Your task to perform on an android device: Open the stopwatch Image 0: 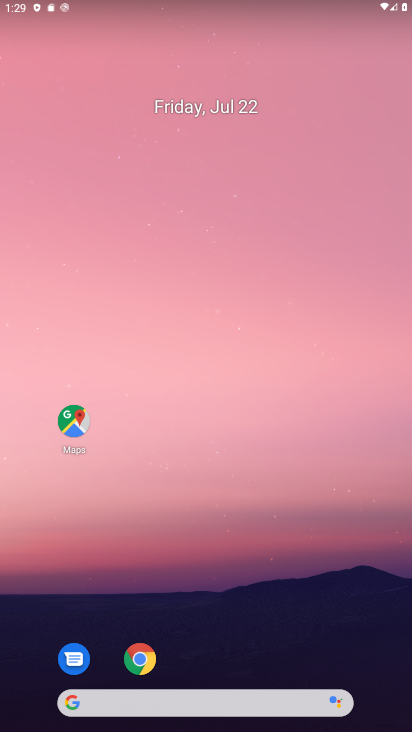
Step 0: drag from (276, 661) to (317, 726)
Your task to perform on an android device: Open the stopwatch Image 1: 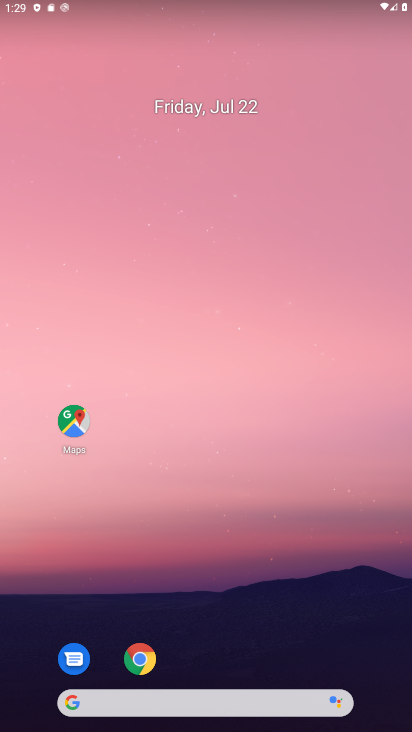
Step 1: drag from (300, 643) to (300, 216)
Your task to perform on an android device: Open the stopwatch Image 2: 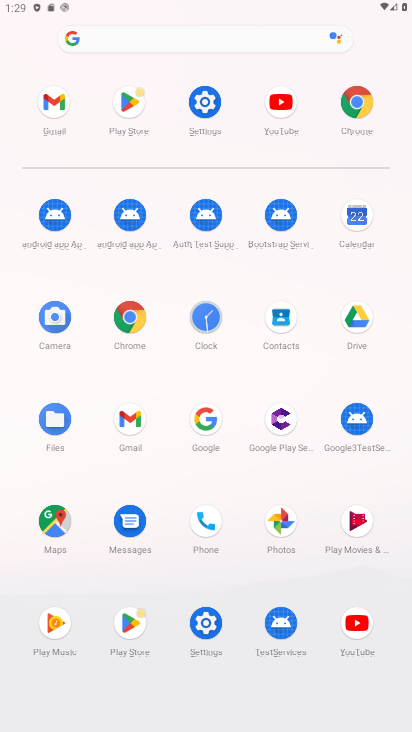
Step 2: click (198, 324)
Your task to perform on an android device: Open the stopwatch Image 3: 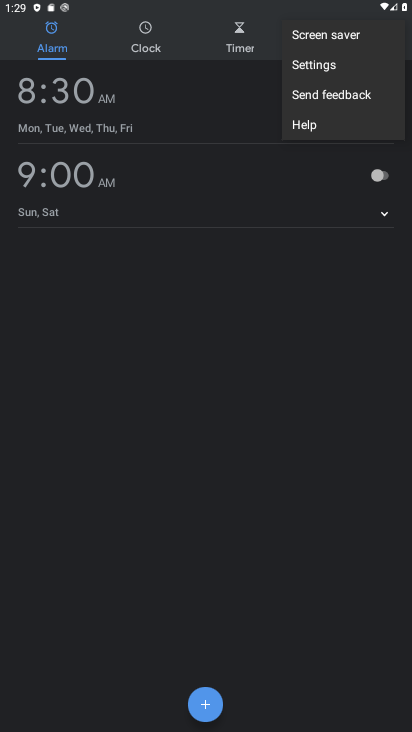
Step 3: click (165, 39)
Your task to perform on an android device: Open the stopwatch Image 4: 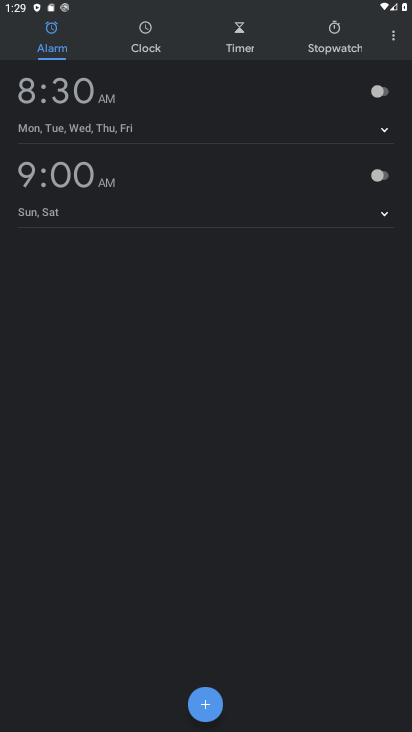
Step 4: task complete